Your task to perform on an android device: empty trash in google photos Image 0: 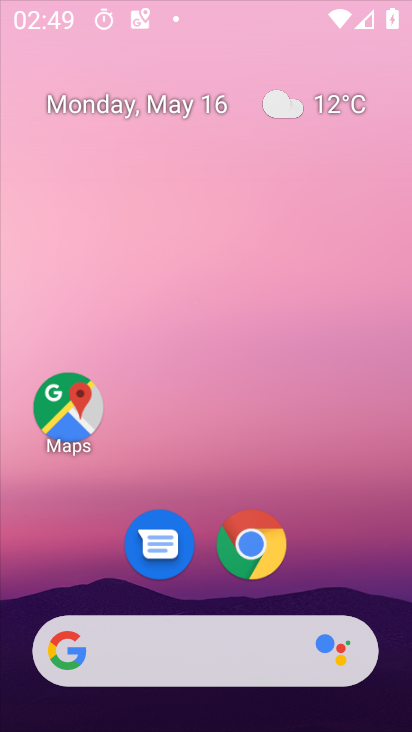
Step 0: click (233, 234)
Your task to perform on an android device: empty trash in google photos Image 1: 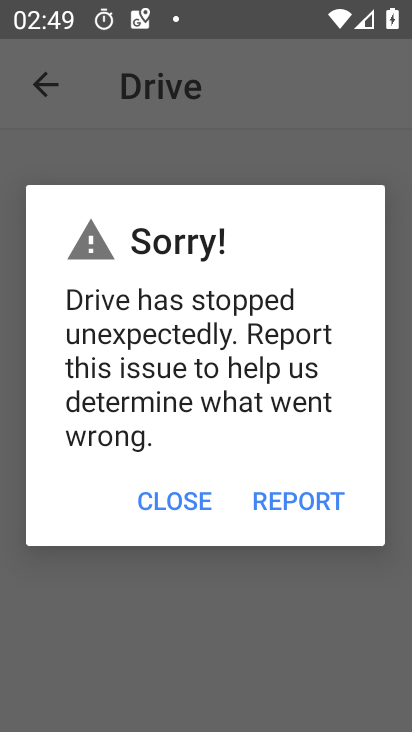
Step 1: press home button
Your task to perform on an android device: empty trash in google photos Image 2: 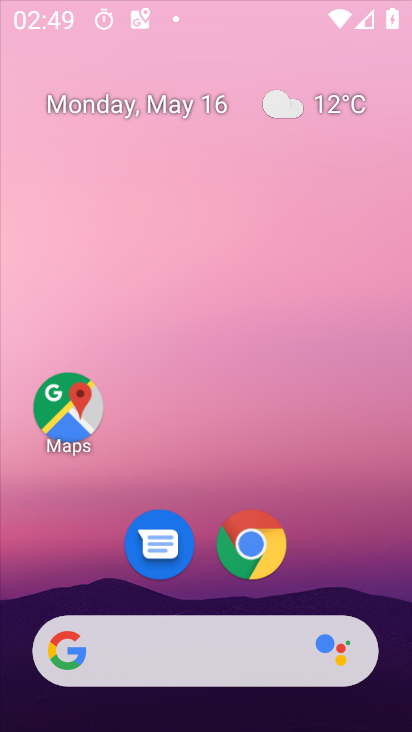
Step 2: drag from (198, 725) to (198, 102)
Your task to perform on an android device: empty trash in google photos Image 3: 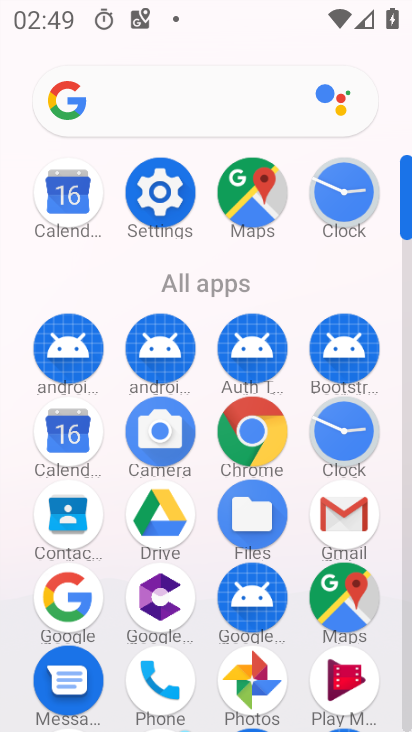
Step 3: click (247, 683)
Your task to perform on an android device: empty trash in google photos Image 4: 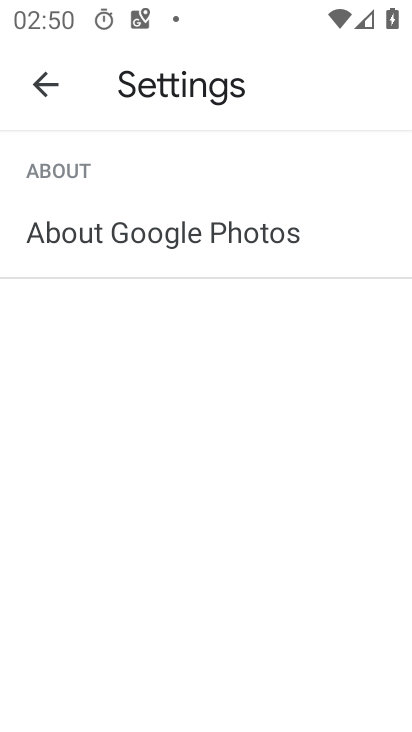
Step 4: click (37, 85)
Your task to perform on an android device: empty trash in google photos Image 5: 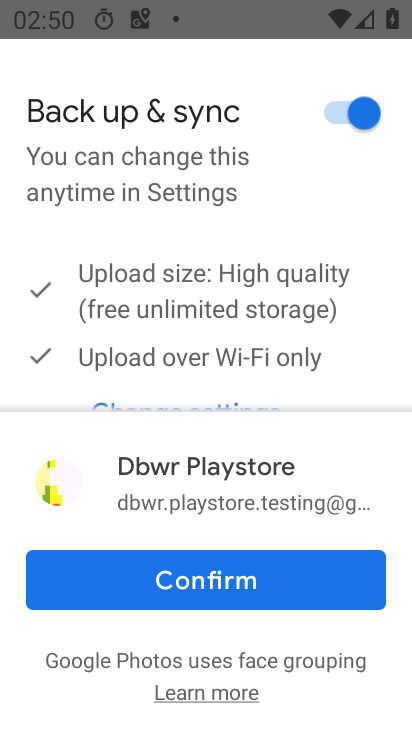
Step 5: click (215, 584)
Your task to perform on an android device: empty trash in google photos Image 6: 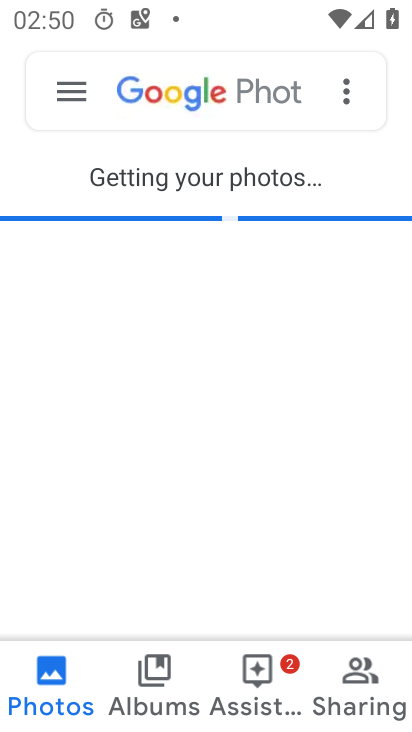
Step 6: click (76, 92)
Your task to perform on an android device: empty trash in google photos Image 7: 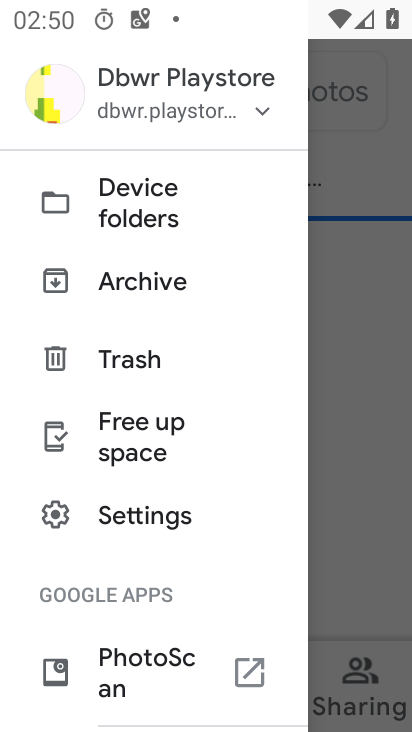
Step 7: click (125, 359)
Your task to perform on an android device: empty trash in google photos Image 8: 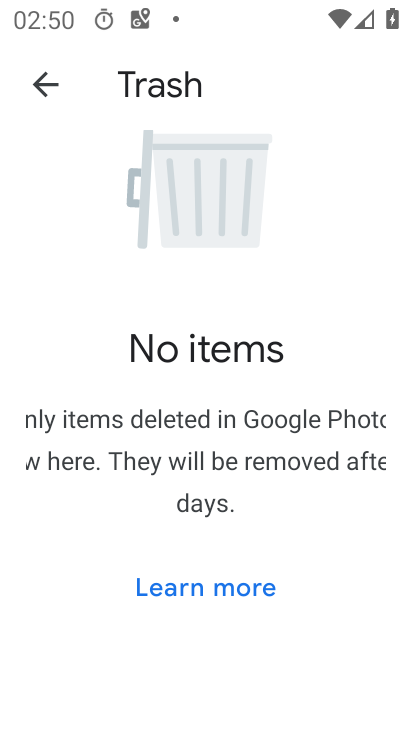
Step 8: task complete